Your task to perform on an android device: Open Chrome and go to settings Image 0: 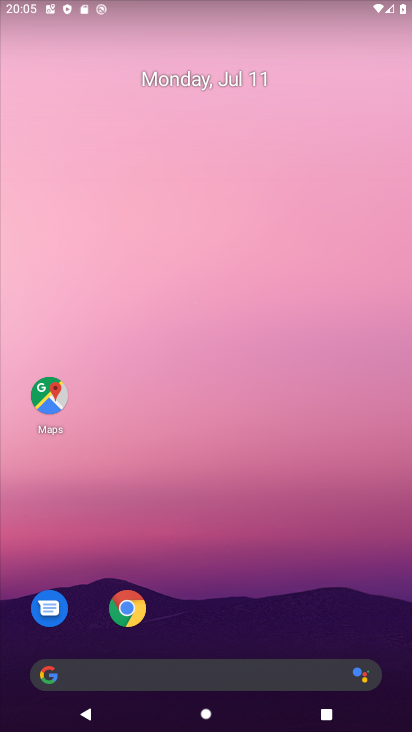
Step 0: click (136, 611)
Your task to perform on an android device: Open Chrome and go to settings Image 1: 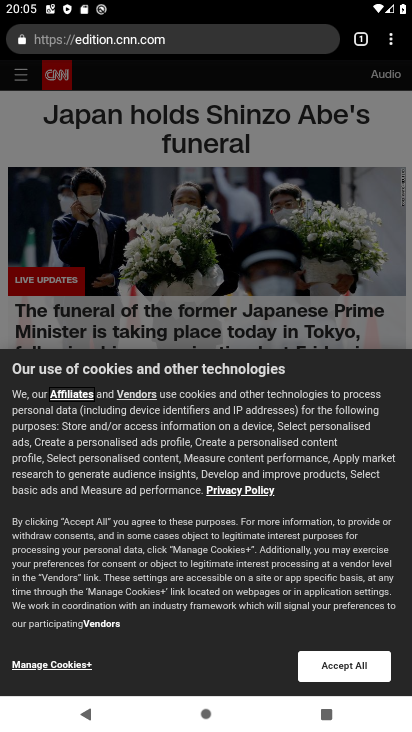
Step 1: click (381, 33)
Your task to perform on an android device: Open Chrome and go to settings Image 2: 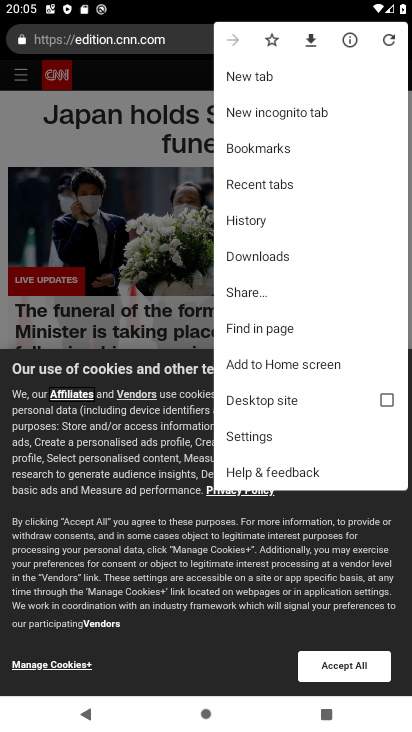
Step 2: click (273, 440)
Your task to perform on an android device: Open Chrome and go to settings Image 3: 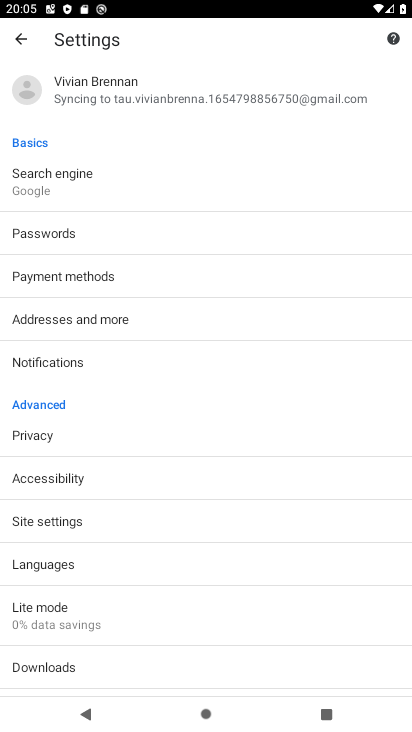
Step 3: task complete